Your task to perform on an android device: set an alarm Image 0: 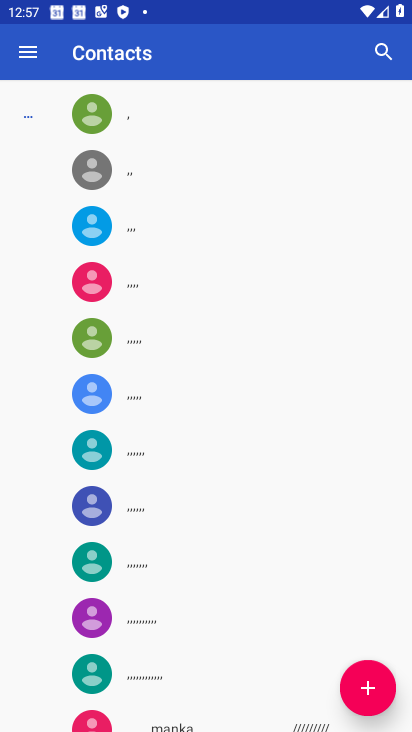
Step 0: press home button
Your task to perform on an android device: set an alarm Image 1: 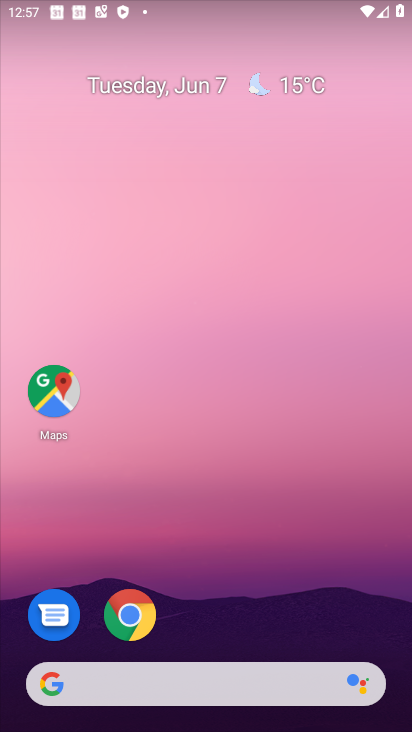
Step 1: drag from (245, 626) to (207, 99)
Your task to perform on an android device: set an alarm Image 2: 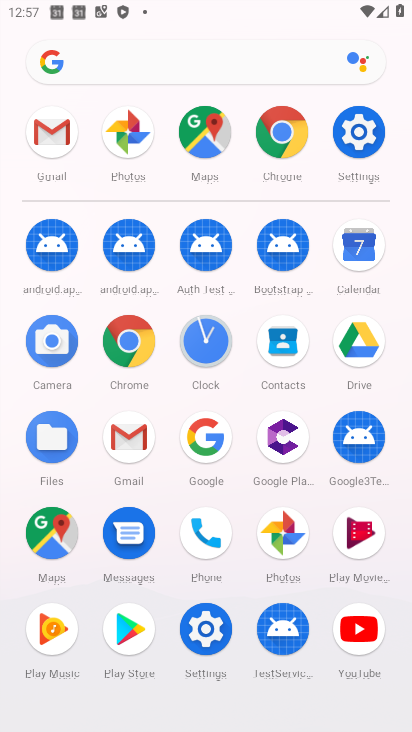
Step 2: click (212, 360)
Your task to perform on an android device: set an alarm Image 3: 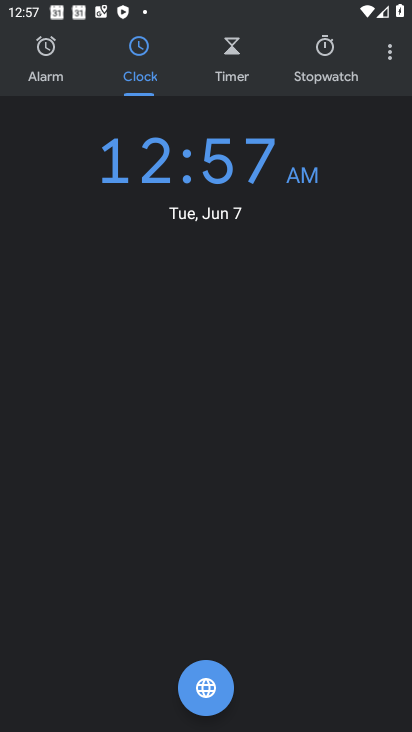
Step 3: click (39, 82)
Your task to perform on an android device: set an alarm Image 4: 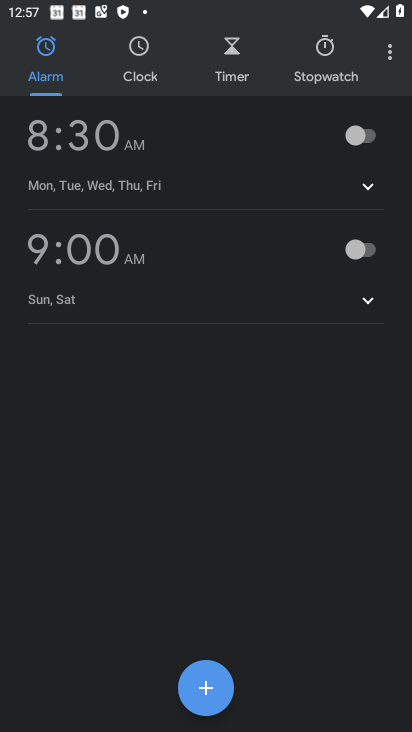
Step 4: click (374, 136)
Your task to perform on an android device: set an alarm Image 5: 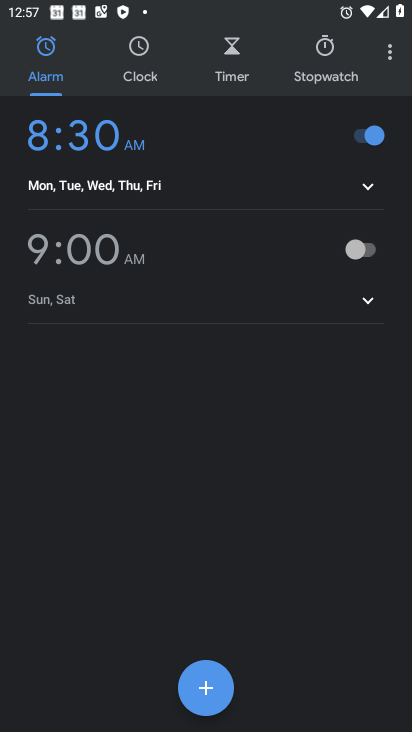
Step 5: task complete